Your task to perform on an android device: Open calendar and show me the third week of next month Image 0: 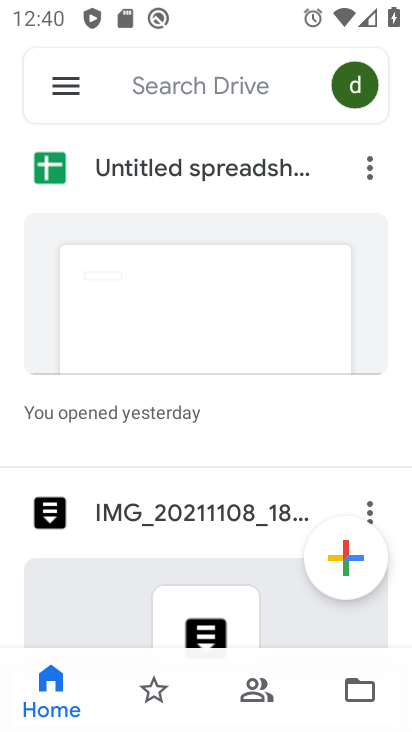
Step 0: press back button
Your task to perform on an android device: Open calendar and show me the third week of next month Image 1: 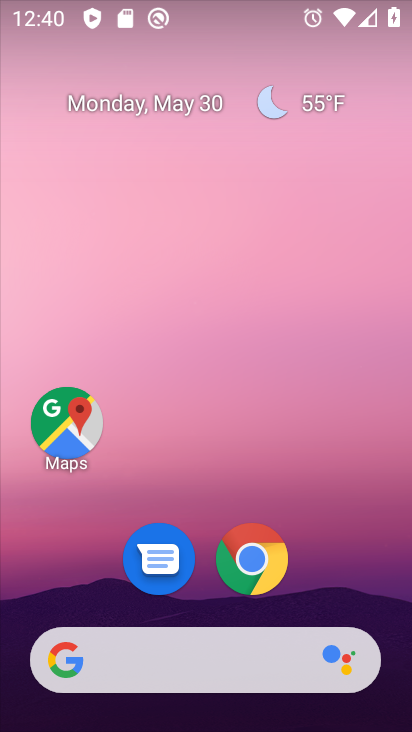
Step 1: drag from (156, 530) to (351, 35)
Your task to perform on an android device: Open calendar and show me the third week of next month Image 2: 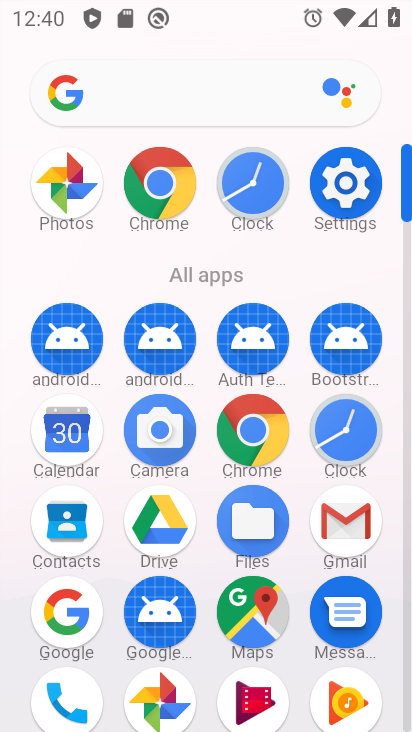
Step 2: click (67, 439)
Your task to perform on an android device: Open calendar and show me the third week of next month Image 3: 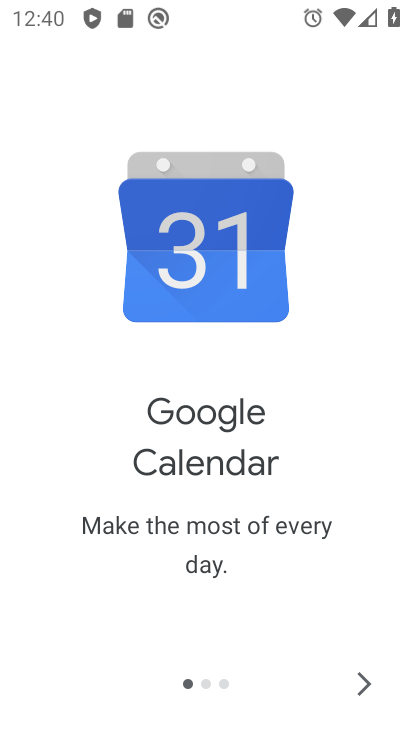
Step 3: click (365, 683)
Your task to perform on an android device: Open calendar and show me the third week of next month Image 4: 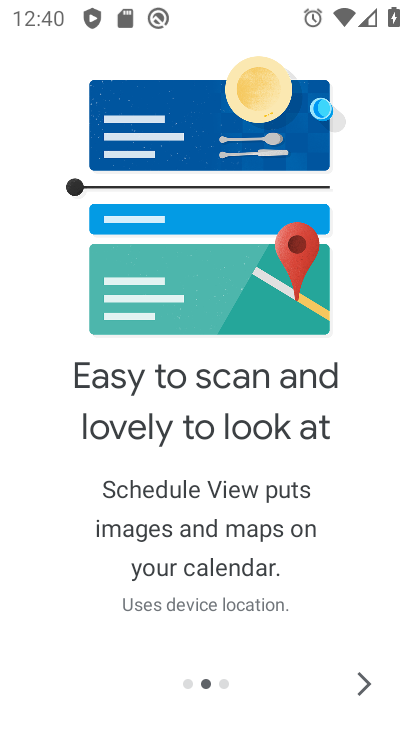
Step 4: click (364, 683)
Your task to perform on an android device: Open calendar and show me the third week of next month Image 5: 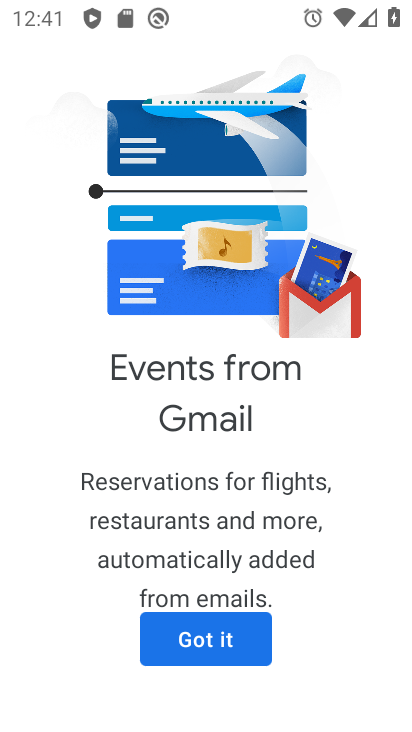
Step 5: click (193, 642)
Your task to perform on an android device: Open calendar and show me the third week of next month Image 6: 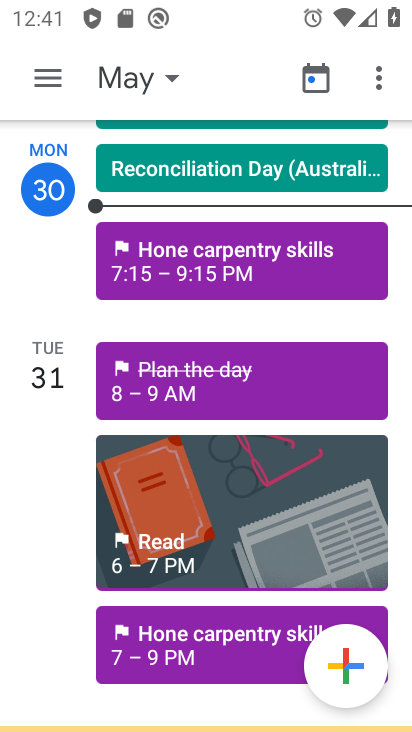
Step 6: click (160, 74)
Your task to perform on an android device: Open calendar and show me the third week of next month Image 7: 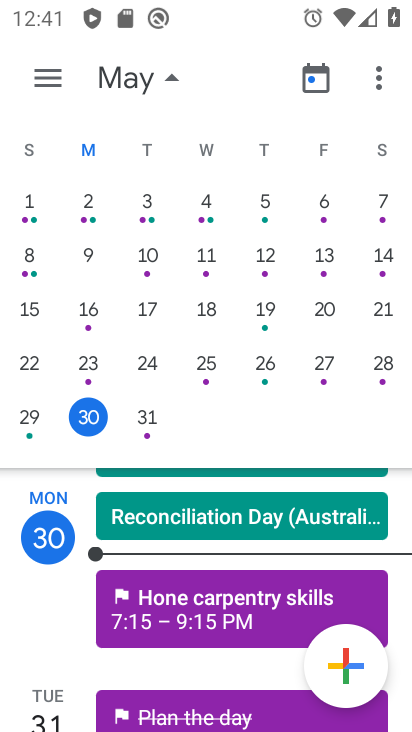
Step 7: drag from (364, 273) to (29, 265)
Your task to perform on an android device: Open calendar and show me the third week of next month Image 8: 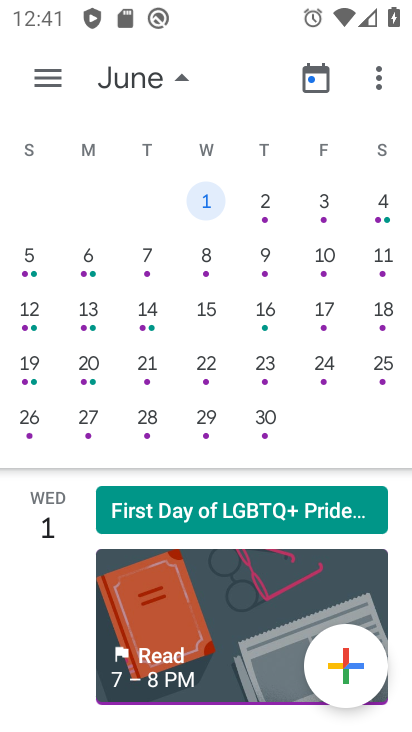
Step 8: click (89, 308)
Your task to perform on an android device: Open calendar and show me the third week of next month Image 9: 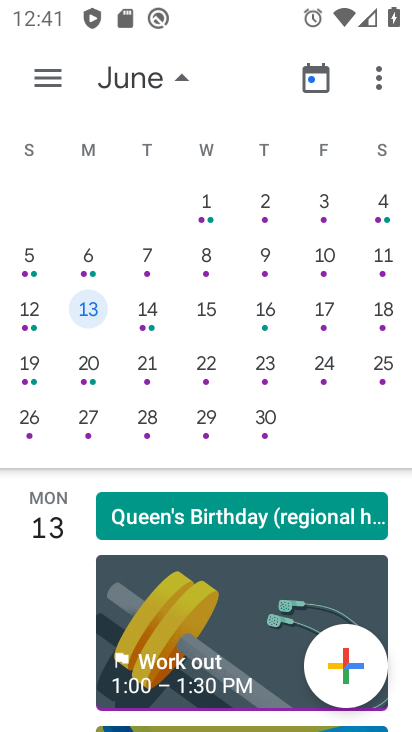
Step 9: task complete